Your task to perform on an android device: Check the settings for the Google Chrome app Image 0: 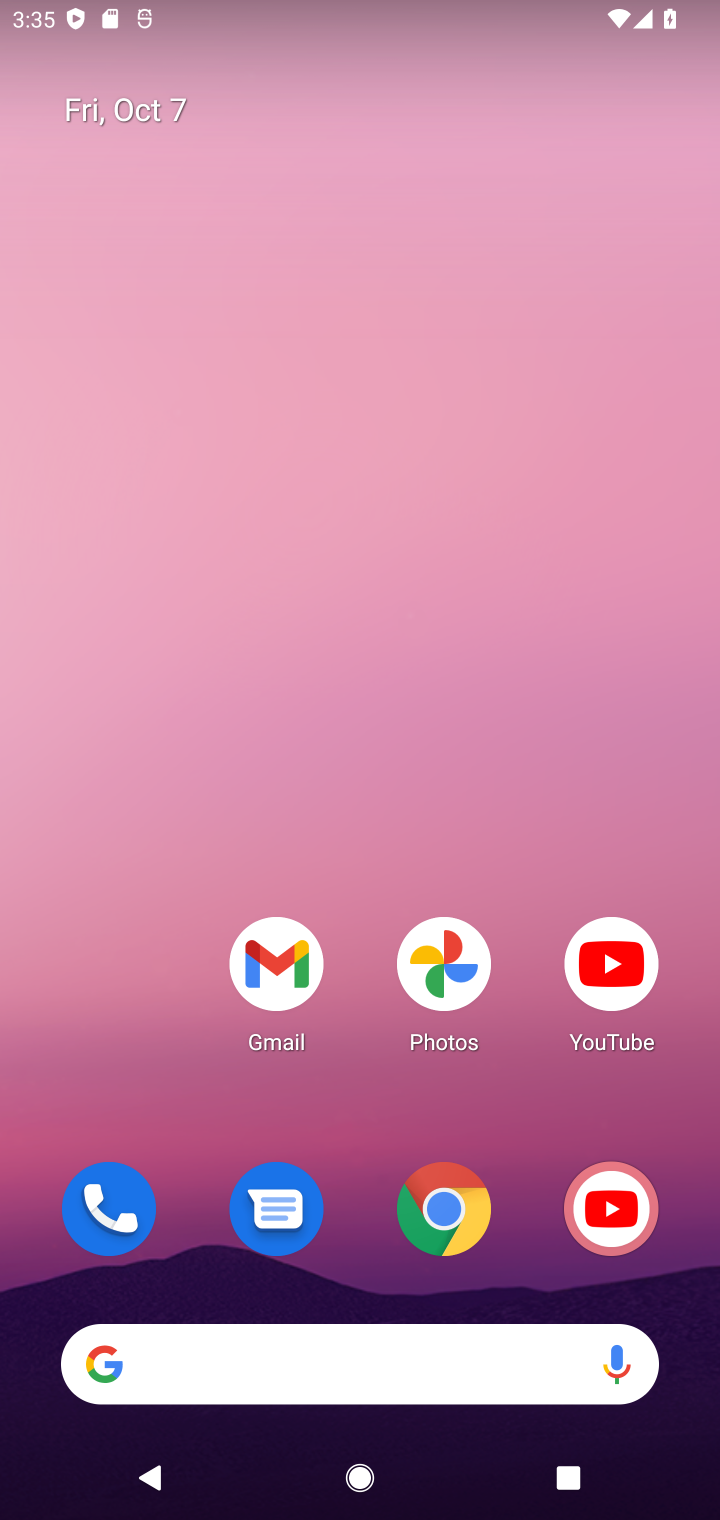
Step 0: press home button
Your task to perform on an android device: Check the settings for the Google Chrome app Image 1: 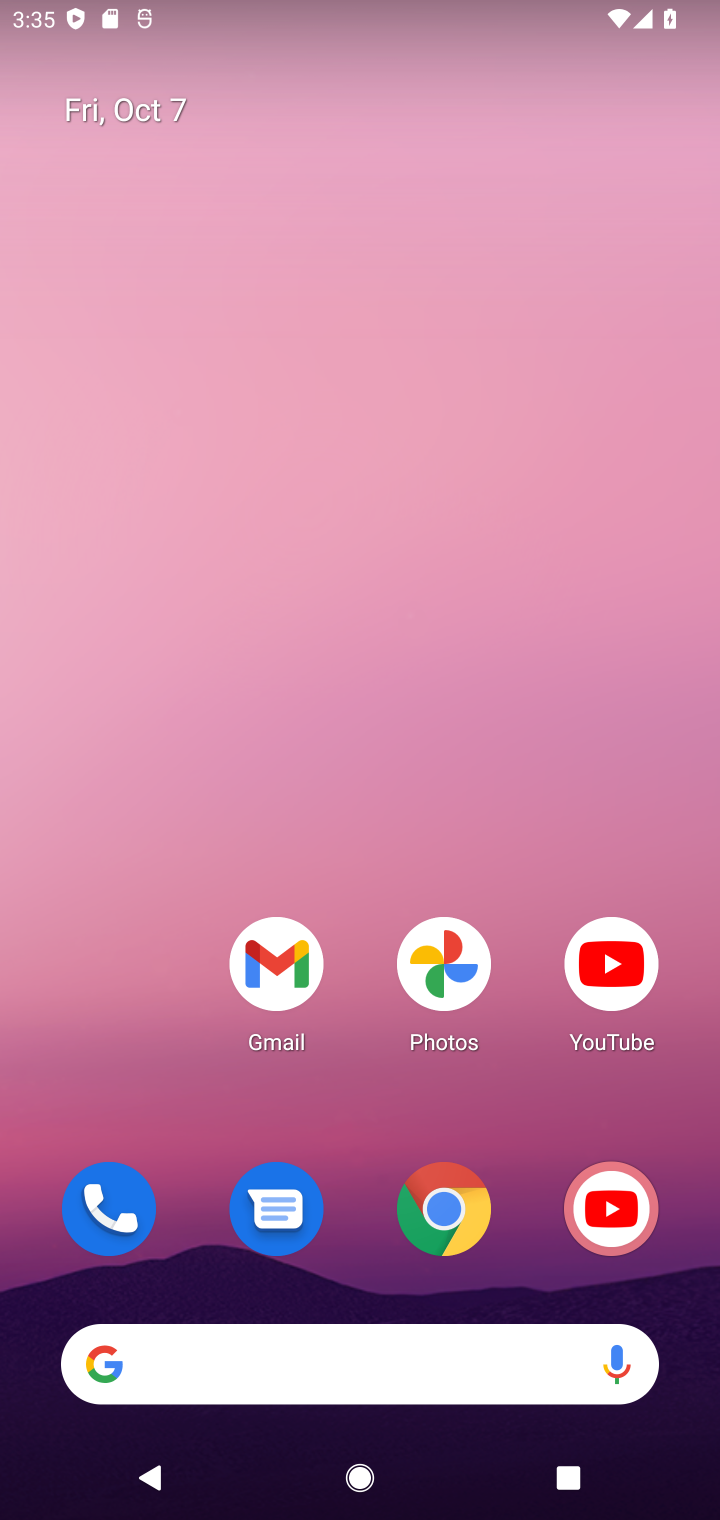
Step 1: drag from (172, 1016) to (188, 174)
Your task to perform on an android device: Check the settings for the Google Chrome app Image 2: 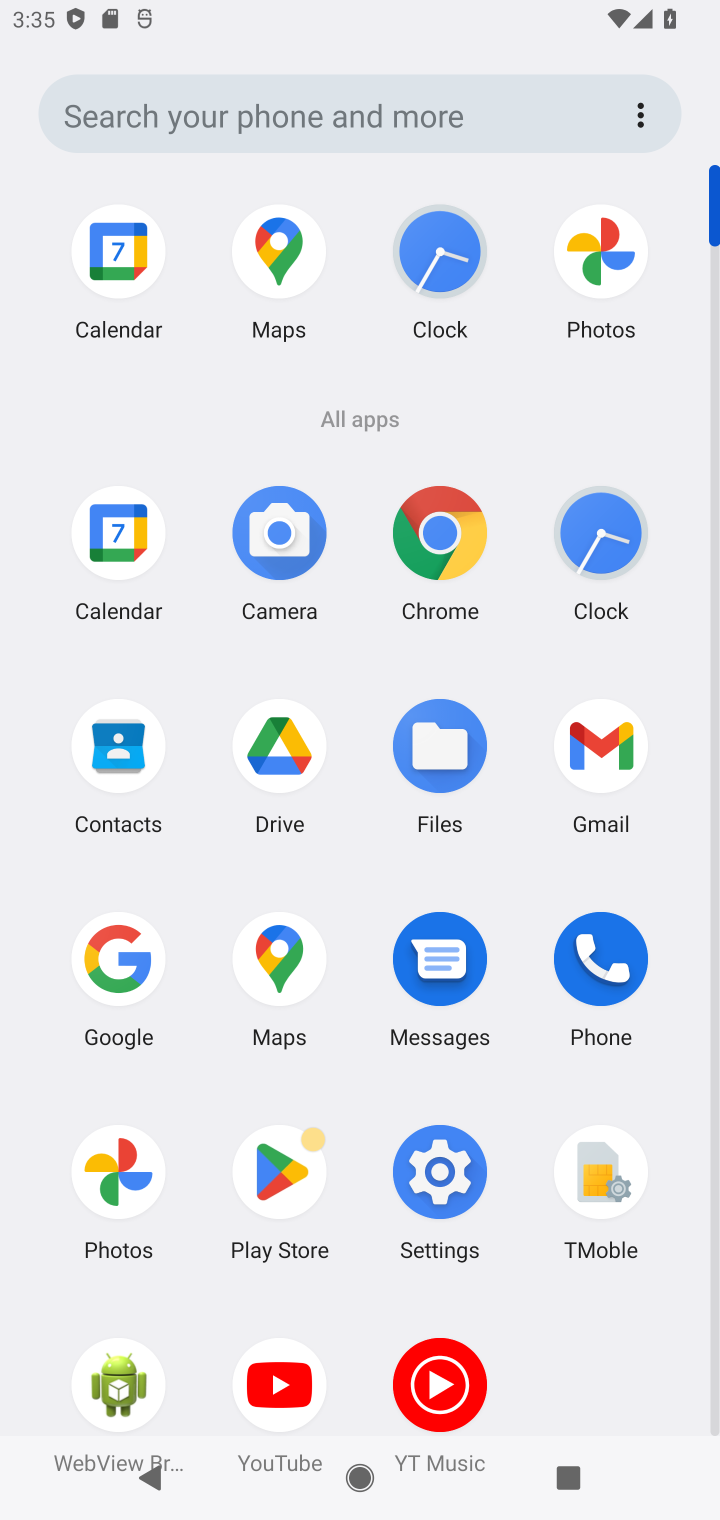
Step 2: click (440, 552)
Your task to perform on an android device: Check the settings for the Google Chrome app Image 3: 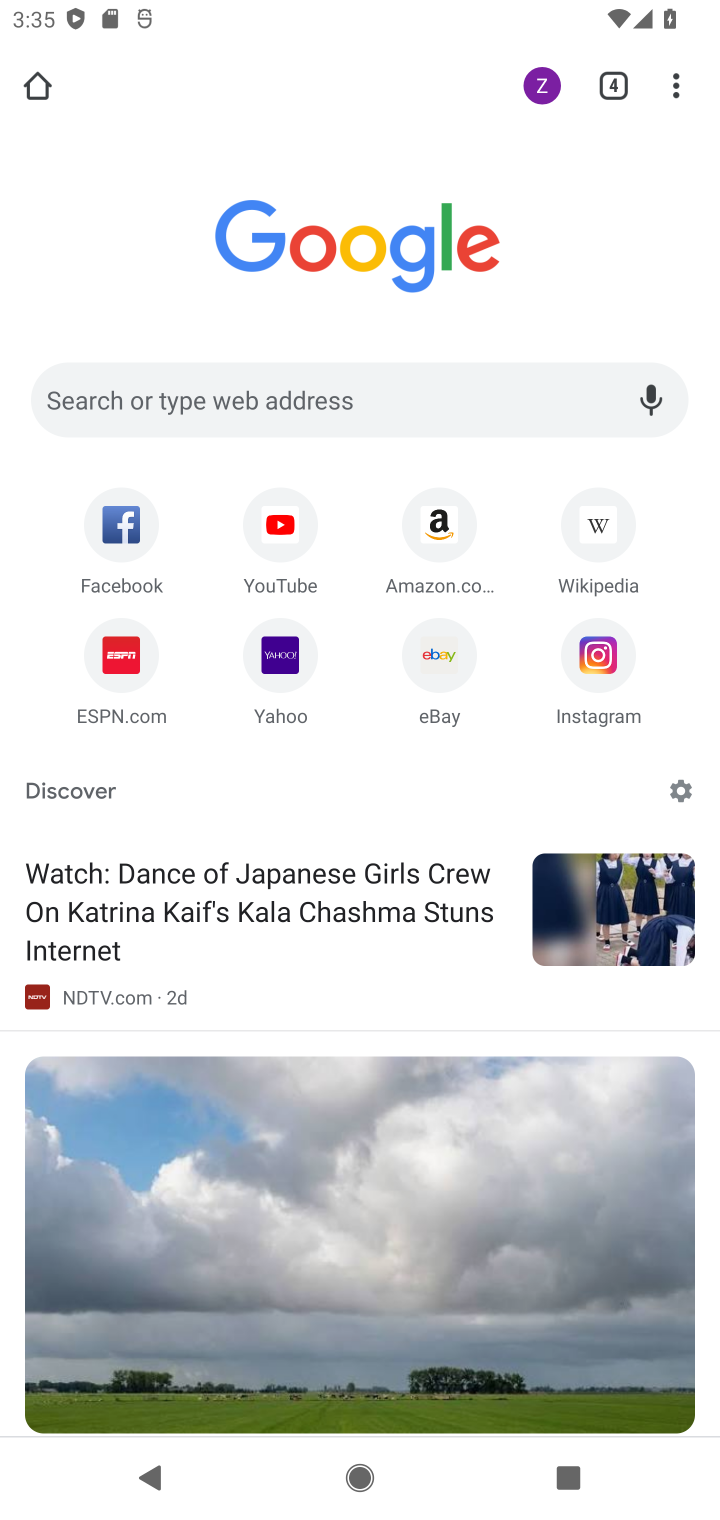
Step 3: click (673, 95)
Your task to perform on an android device: Check the settings for the Google Chrome app Image 4: 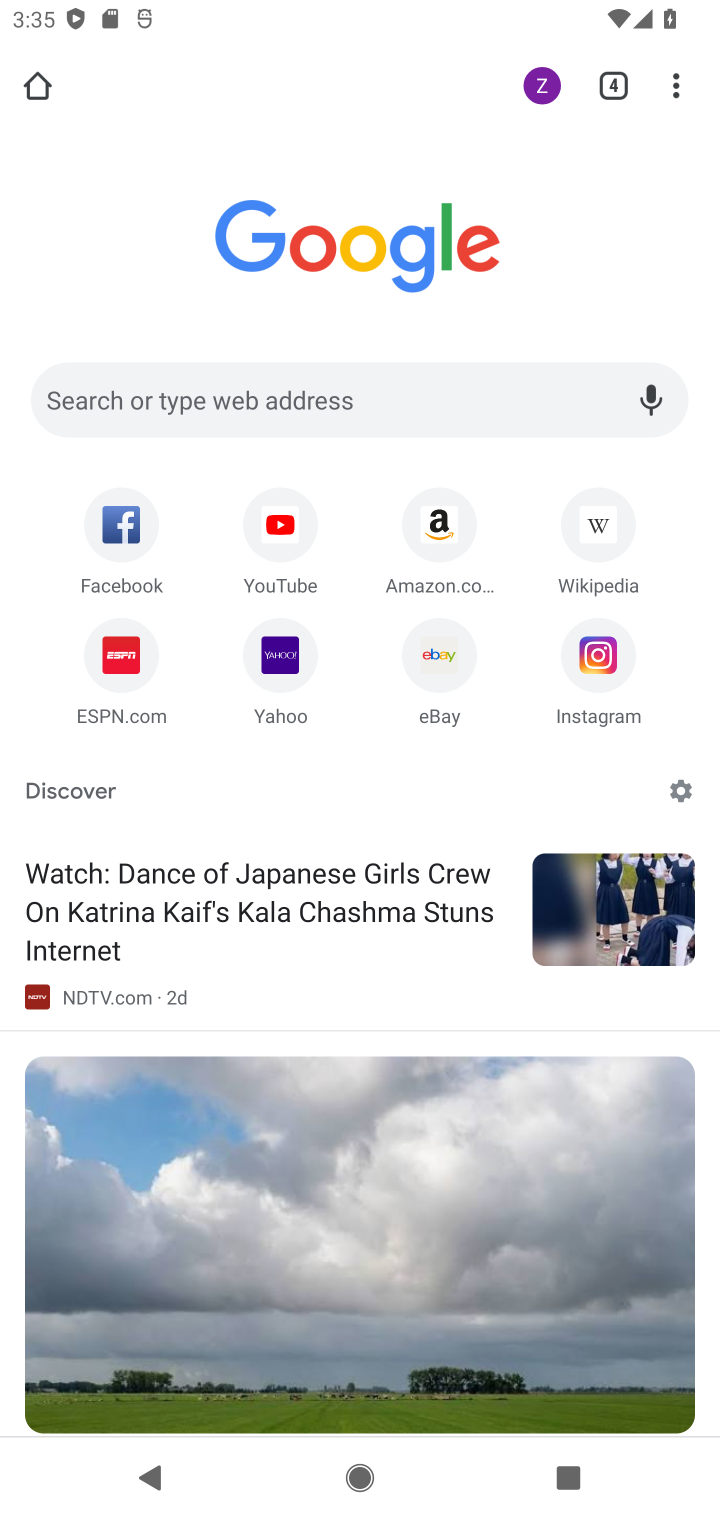
Step 4: click (680, 95)
Your task to perform on an android device: Check the settings for the Google Chrome app Image 5: 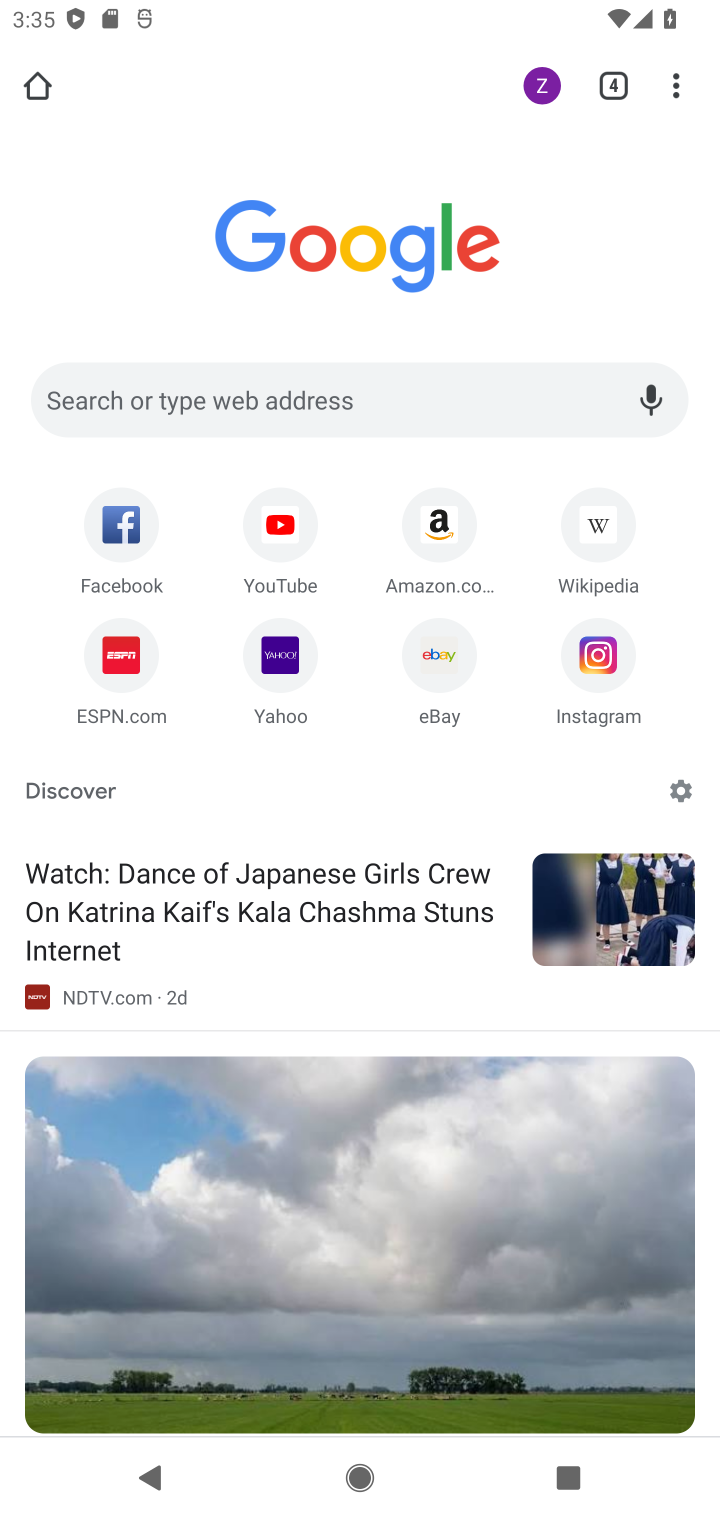
Step 5: click (677, 95)
Your task to perform on an android device: Check the settings for the Google Chrome app Image 6: 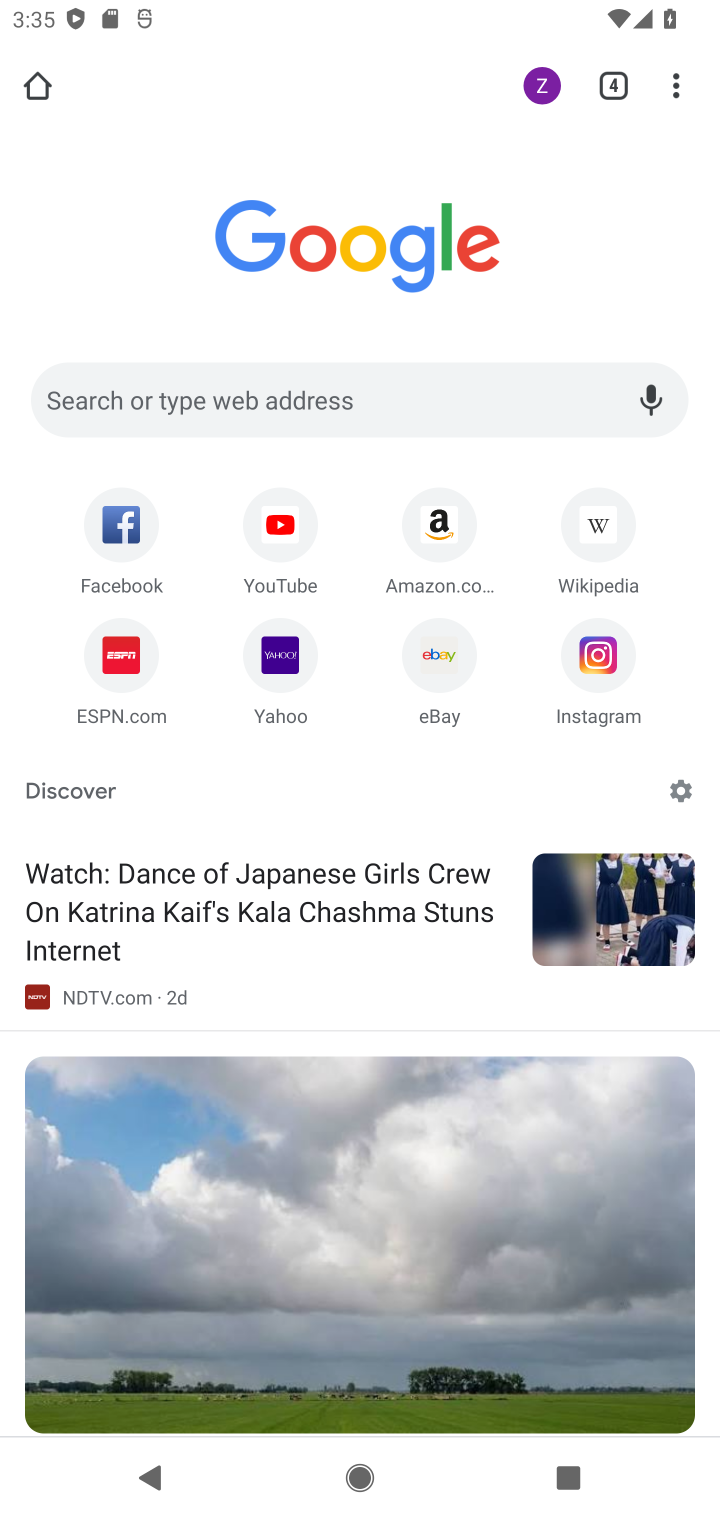
Step 6: click (677, 95)
Your task to perform on an android device: Check the settings for the Google Chrome app Image 7: 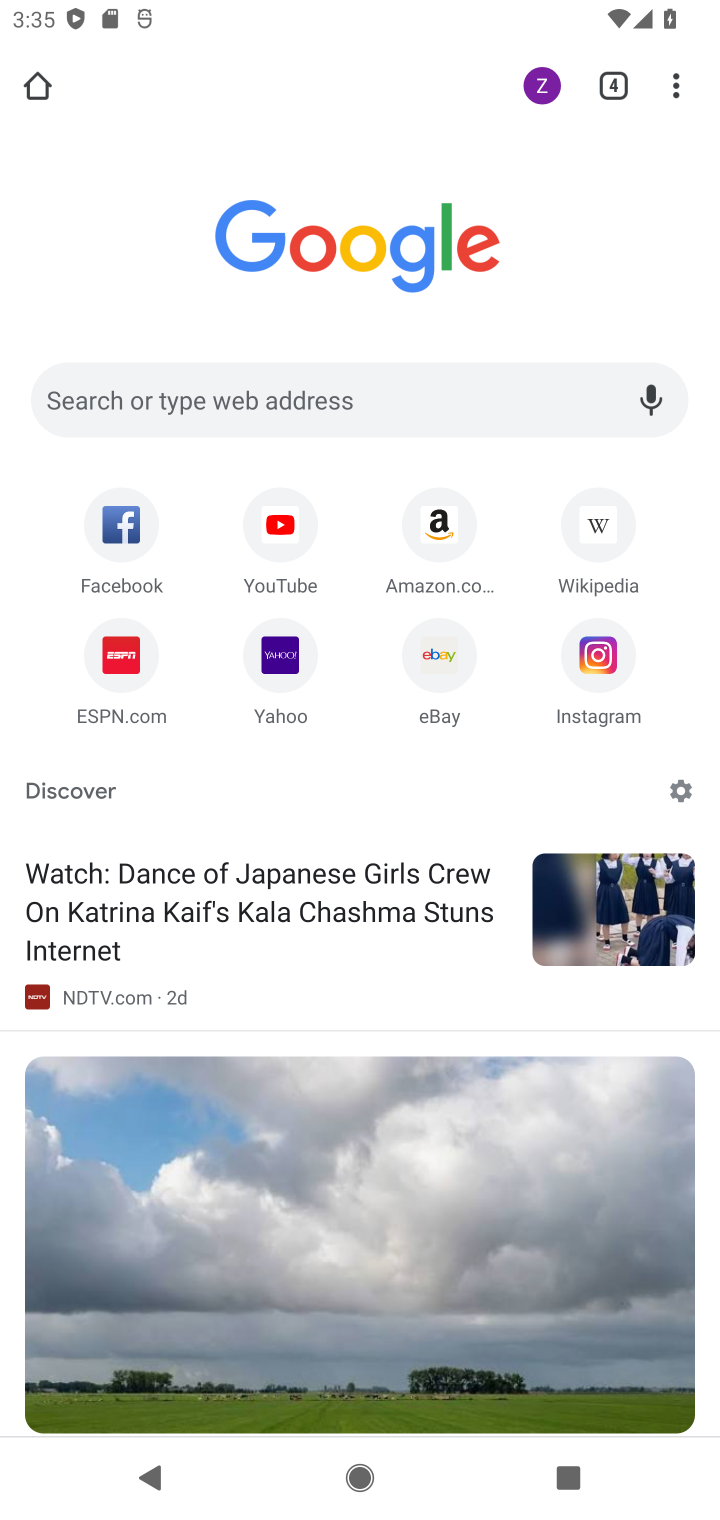
Step 7: click (681, 86)
Your task to perform on an android device: Check the settings for the Google Chrome app Image 8: 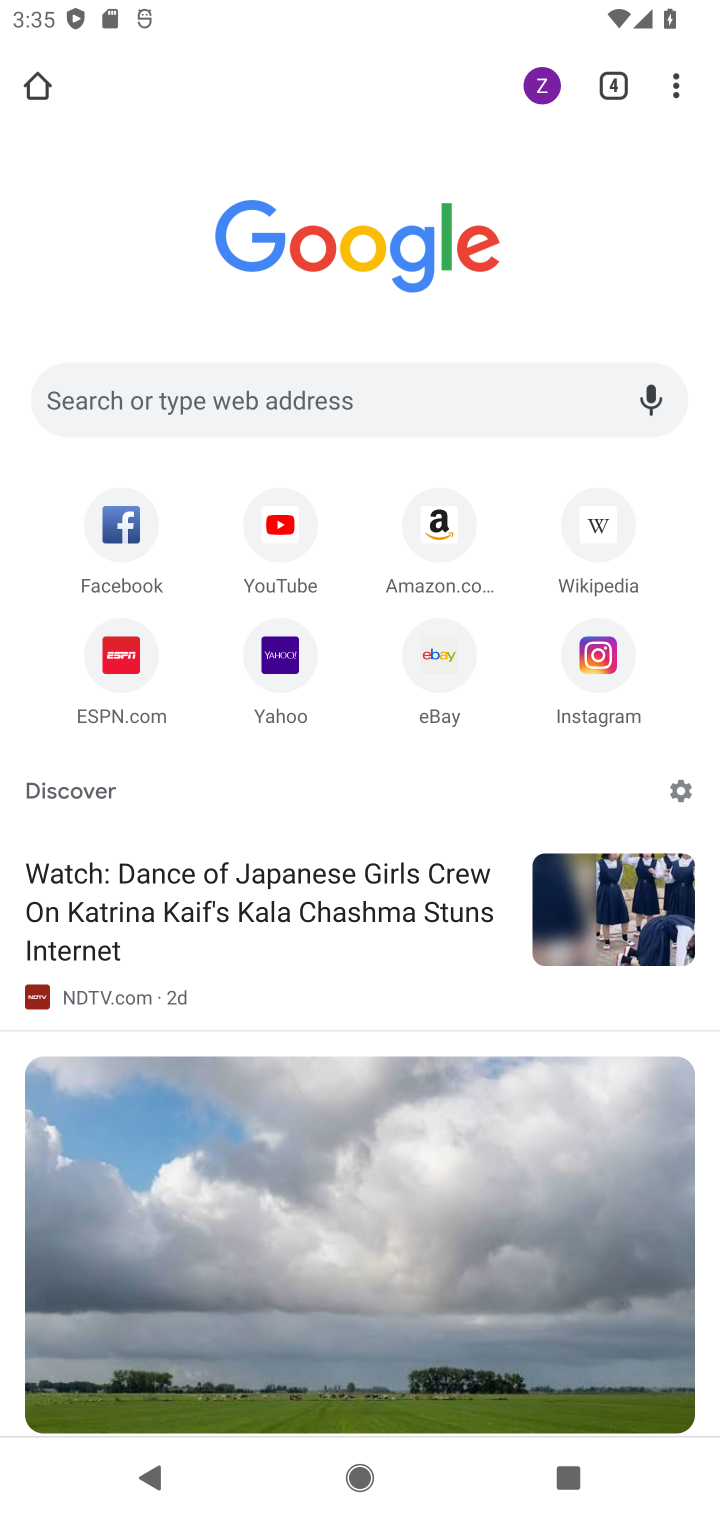
Step 8: click (673, 89)
Your task to perform on an android device: Check the settings for the Google Chrome app Image 9: 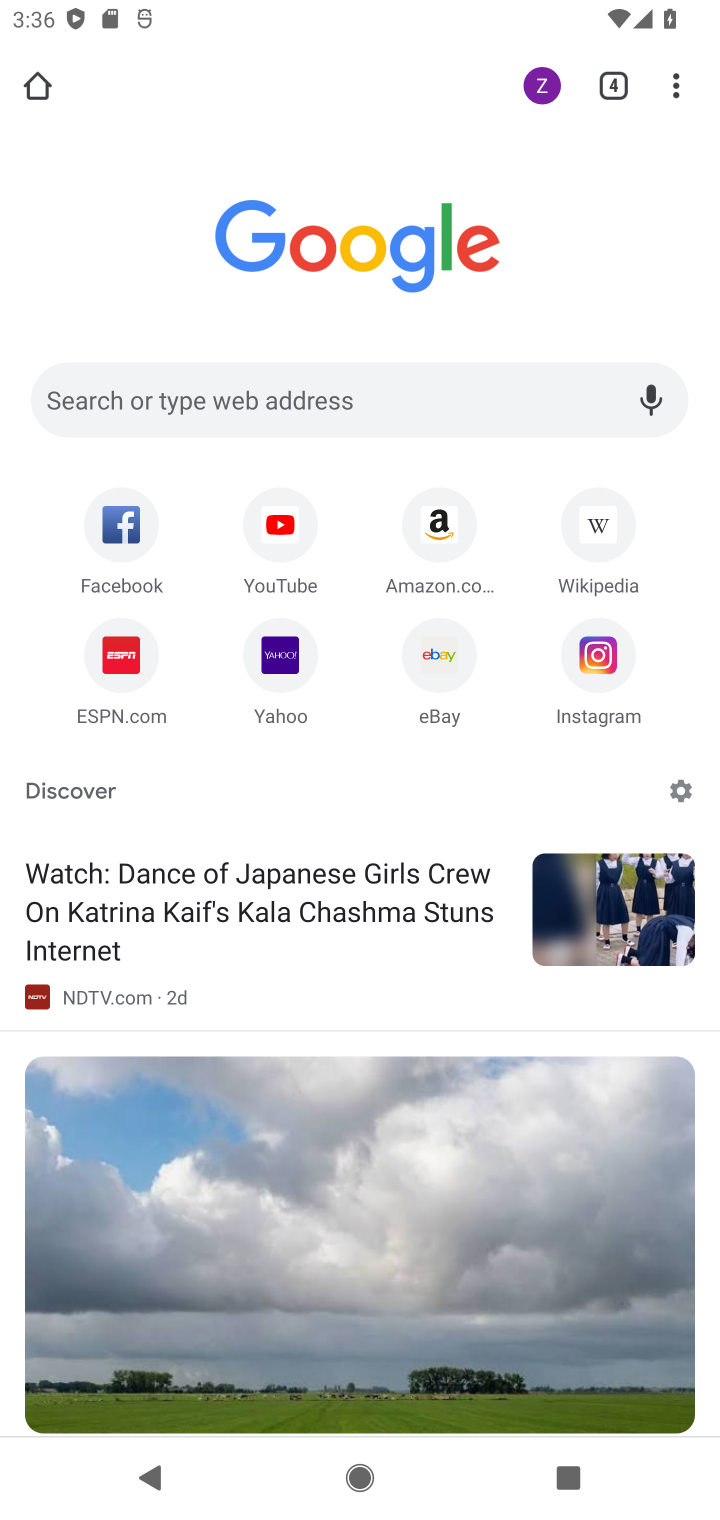
Step 9: click (675, 91)
Your task to perform on an android device: Check the settings for the Google Chrome app Image 10: 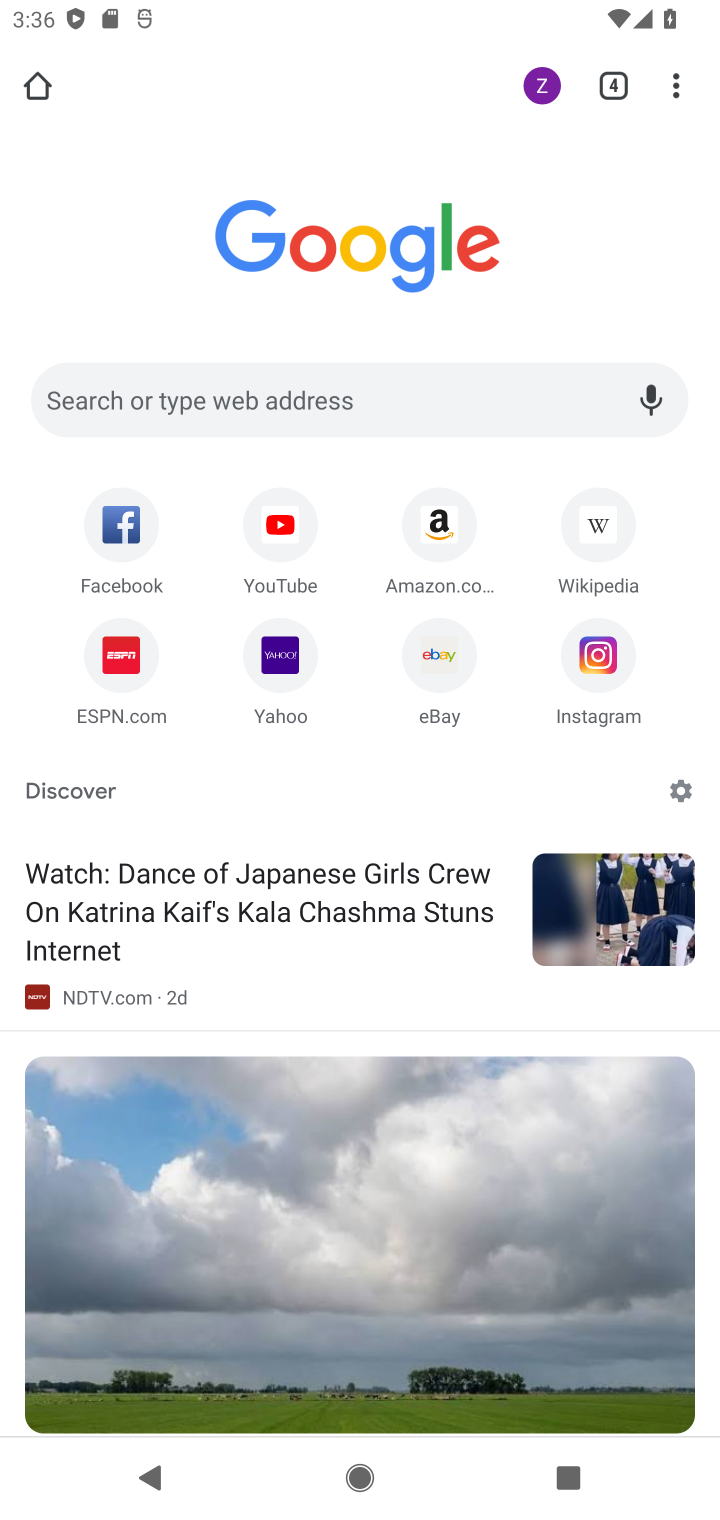
Step 10: drag from (430, 712) to (432, 263)
Your task to perform on an android device: Check the settings for the Google Chrome app Image 11: 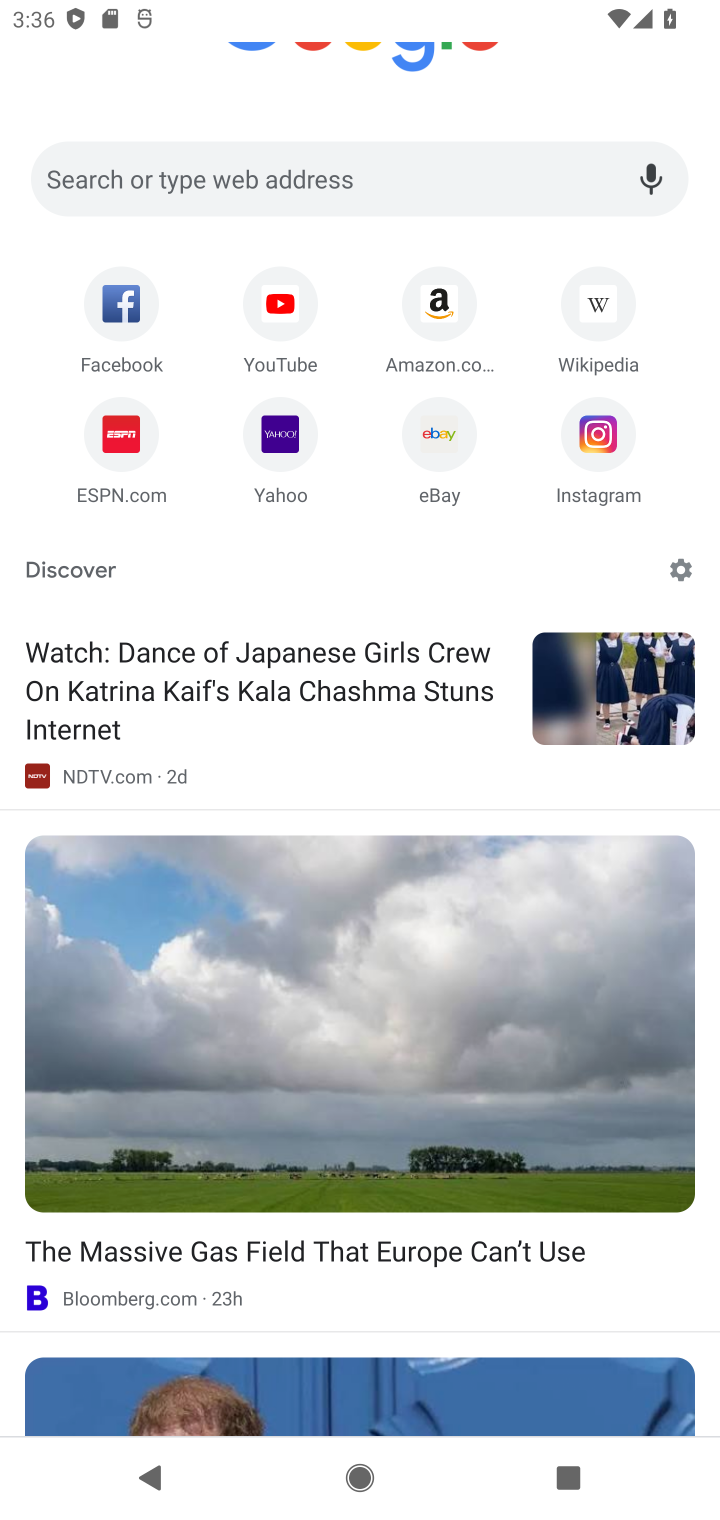
Step 11: drag from (543, 129) to (500, 894)
Your task to perform on an android device: Check the settings for the Google Chrome app Image 12: 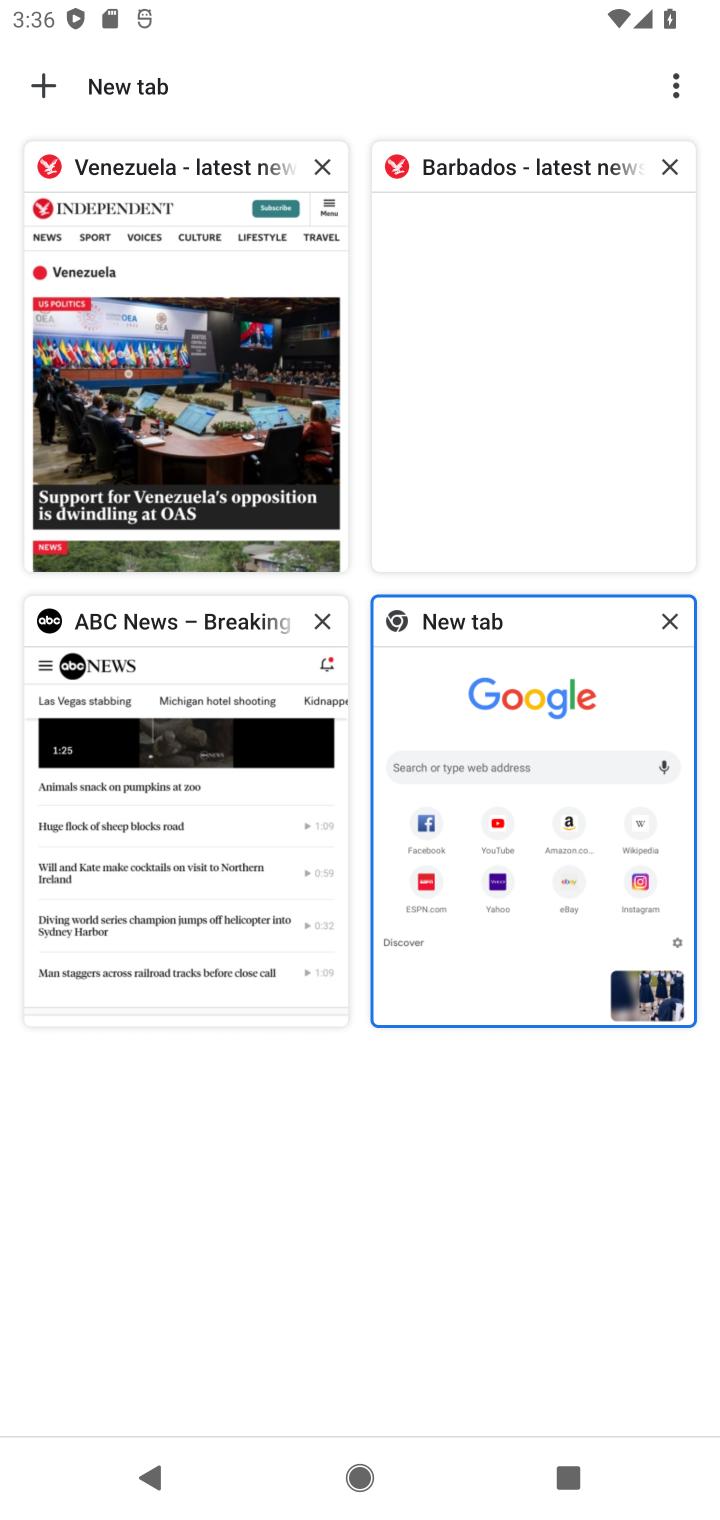
Step 12: click (673, 90)
Your task to perform on an android device: Check the settings for the Google Chrome app Image 13: 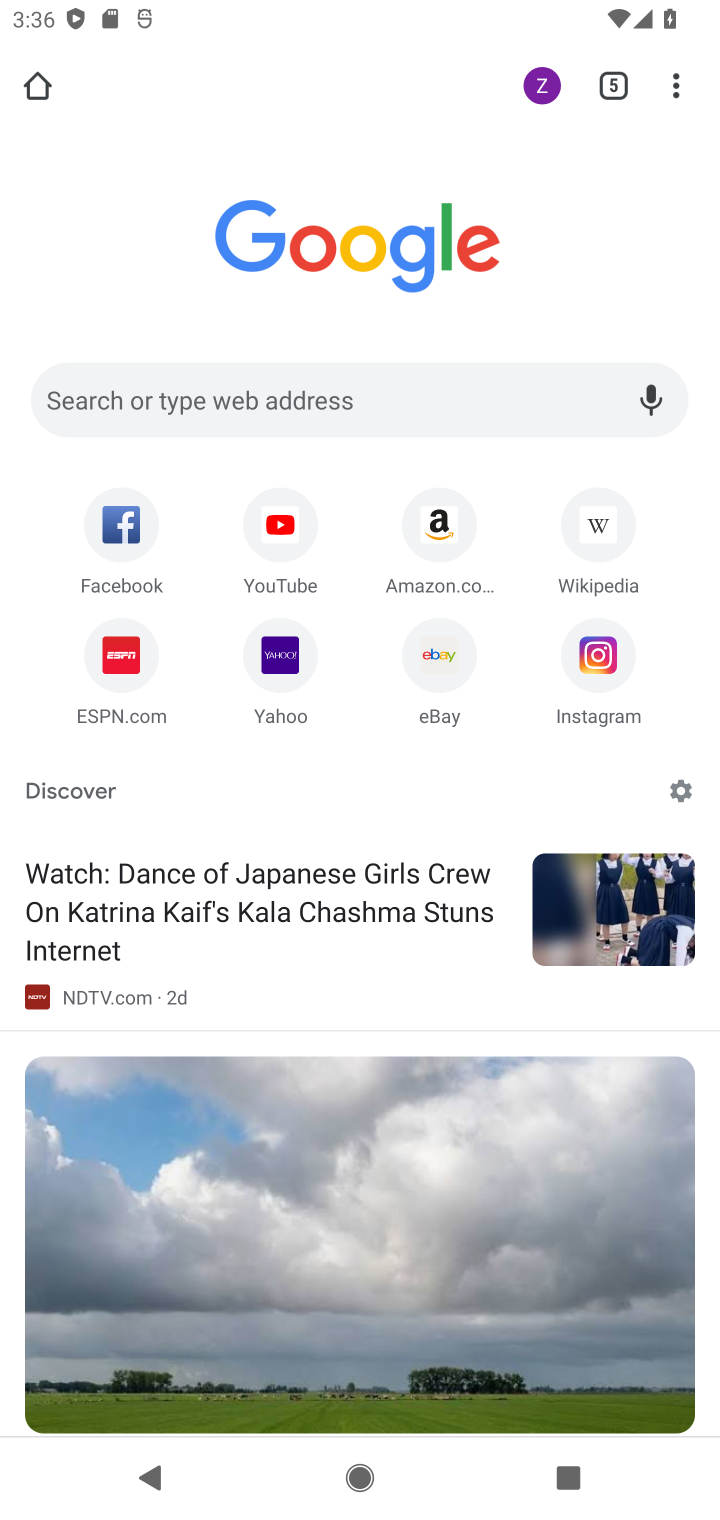
Step 13: click (673, 90)
Your task to perform on an android device: Check the settings for the Google Chrome app Image 14: 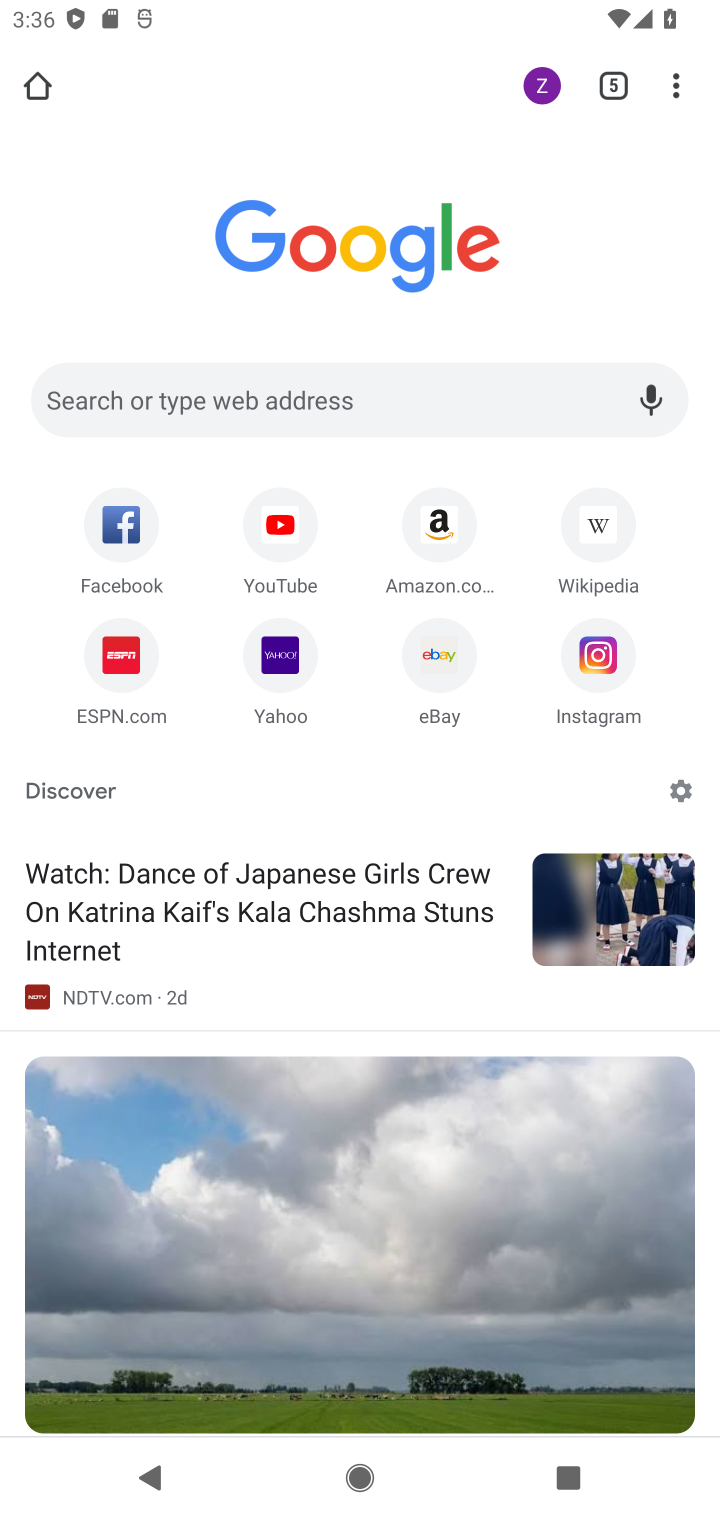
Step 14: click (679, 92)
Your task to perform on an android device: Check the settings for the Google Chrome app Image 15: 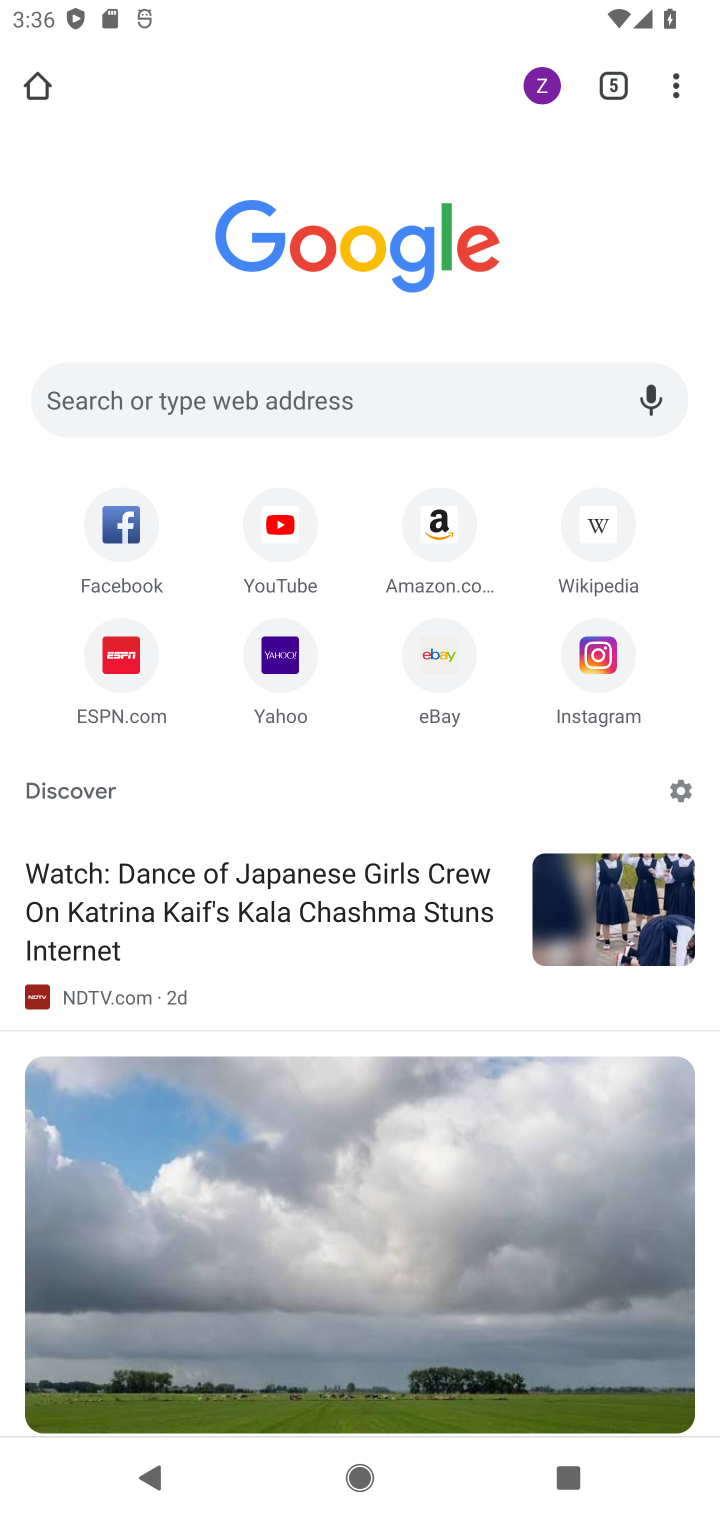
Step 15: task complete